Your task to perform on an android device: turn on javascript in the chrome app Image 0: 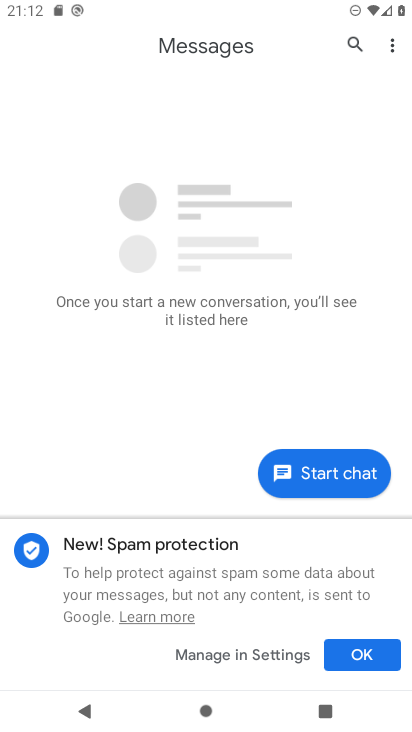
Step 0: press home button
Your task to perform on an android device: turn on javascript in the chrome app Image 1: 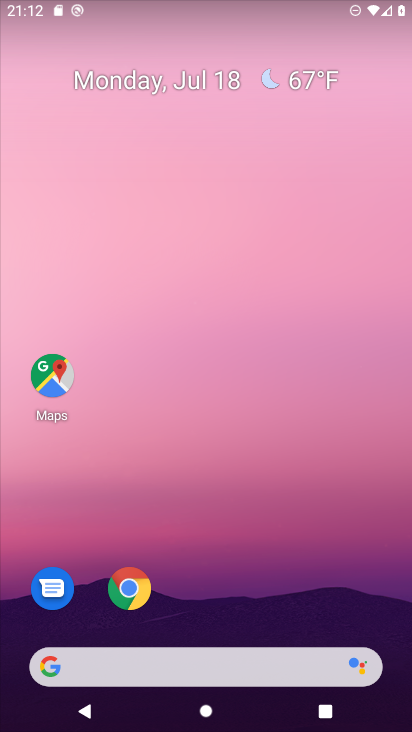
Step 1: click (134, 583)
Your task to perform on an android device: turn on javascript in the chrome app Image 2: 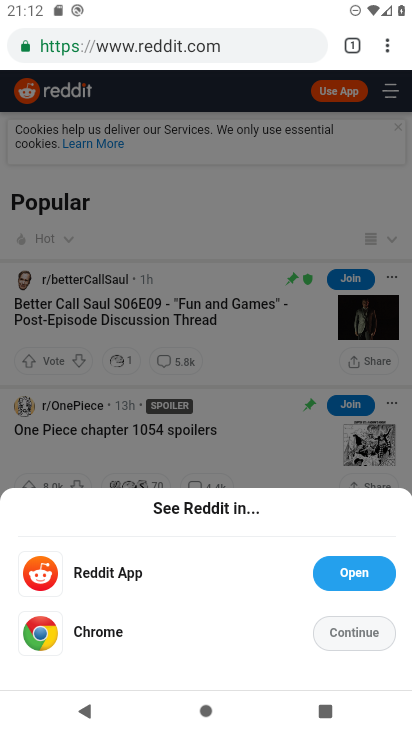
Step 2: click (303, 268)
Your task to perform on an android device: turn on javascript in the chrome app Image 3: 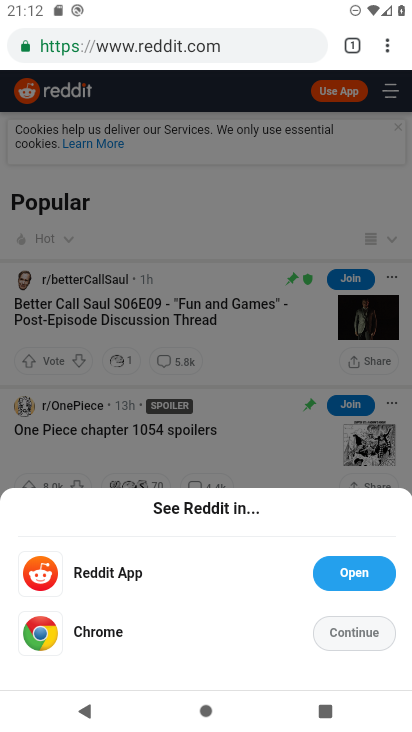
Step 3: click (385, 52)
Your task to perform on an android device: turn on javascript in the chrome app Image 4: 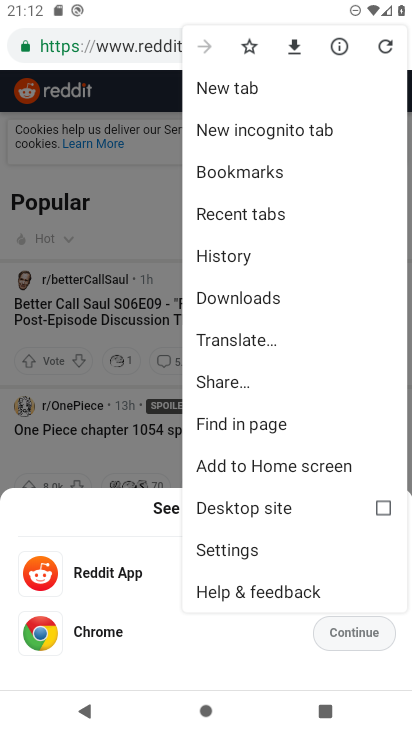
Step 4: click (233, 551)
Your task to perform on an android device: turn on javascript in the chrome app Image 5: 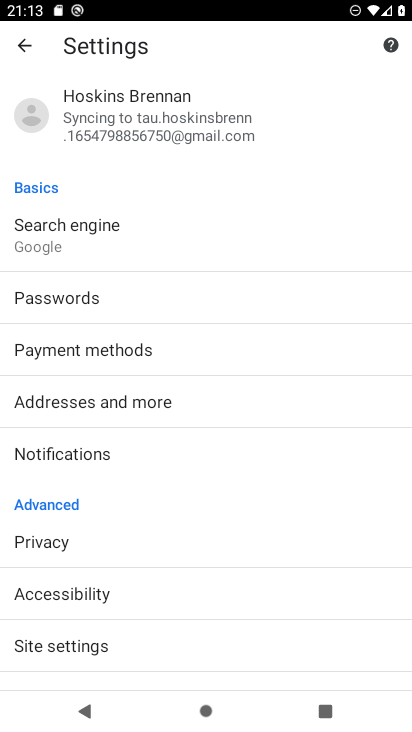
Step 5: drag from (193, 622) to (209, 386)
Your task to perform on an android device: turn on javascript in the chrome app Image 6: 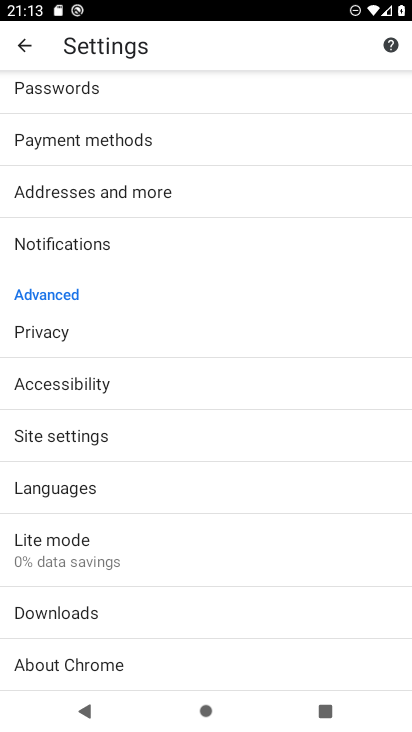
Step 6: click (52, 433)
Your task to perform on an android device: turn on javascript in the chrome app Image 7: 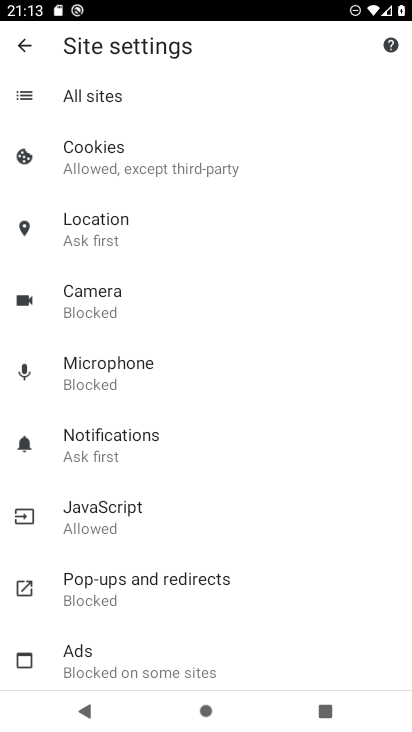
Step 7: click (110, 523)
Your task to perform on an android device: turn on javascript in the chrome app Image 8: 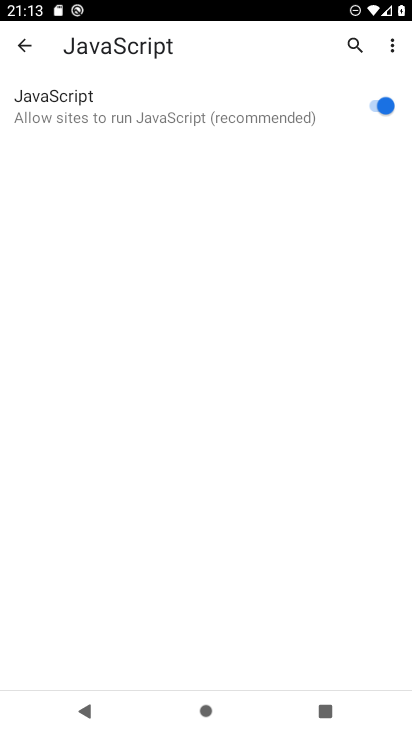
Step 8: task complete